Your task to perform on an android device: turn off wifi Image 0: 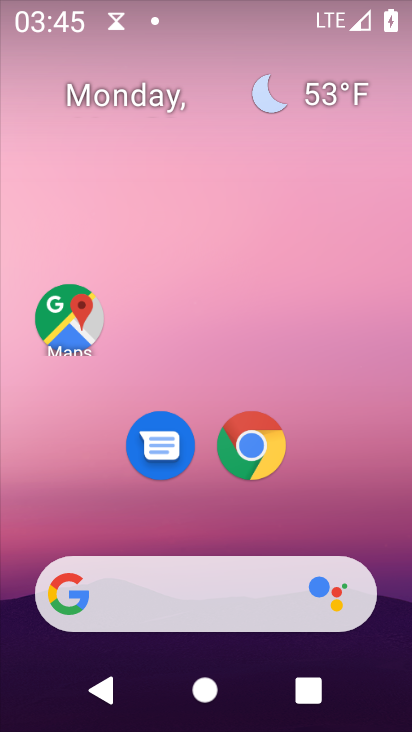
Step 0: drag from (194, 497) to (205, 174)
Your task to perform on an android device: turn off wifi Image 1: 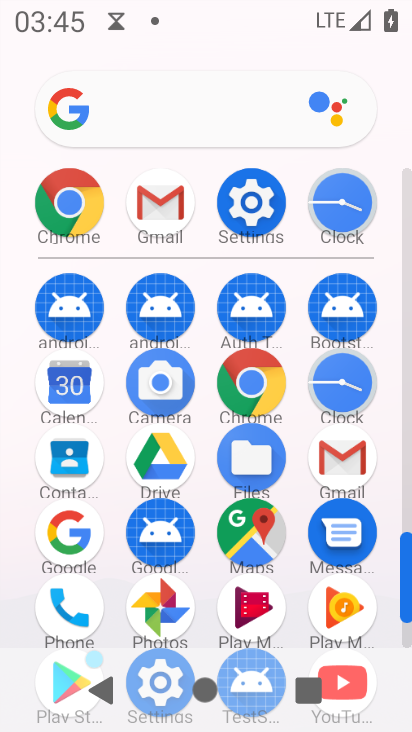
Step 1: click (256, 210)
Your task to perform on an android device: turn off wifi Image 2: 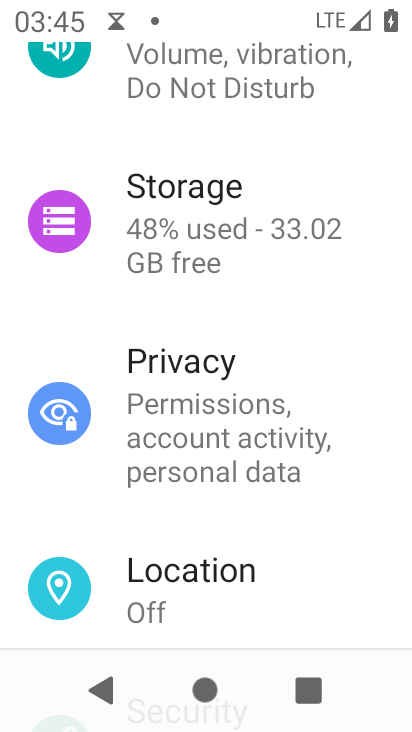
Step 2: drag from (201, 228) to (201, 572)
Your task to perform on an android device: turn off wifi Image 3: 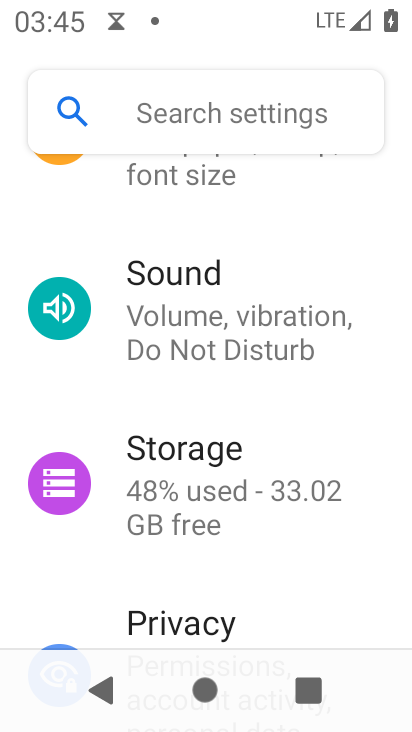
Step 3: drag from (235, 244) to (183, 729)
Your task to perform on an android device: turn off wifi Image 4: 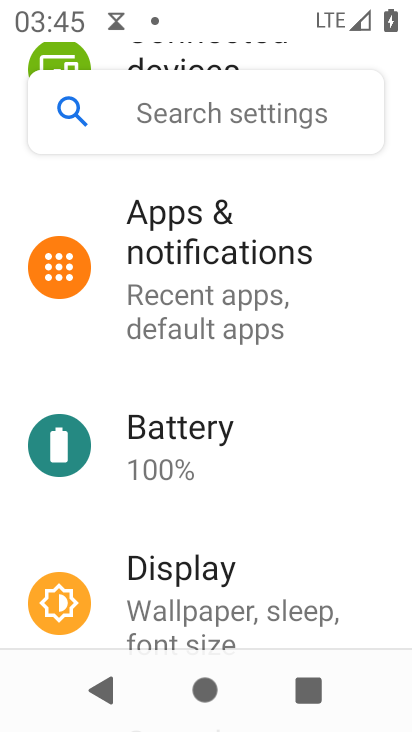
Step 4: drag from (235, 253) to (234, 477)
Your task to perform on an android device: turn off wifi Image 5: 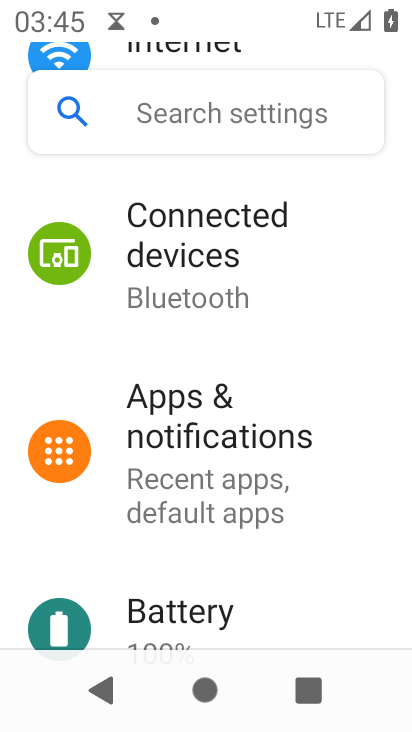
Step 5: drag from (248, 273) to (184, 717)
Your task to perform on an android device: turn off wifi Image 6: 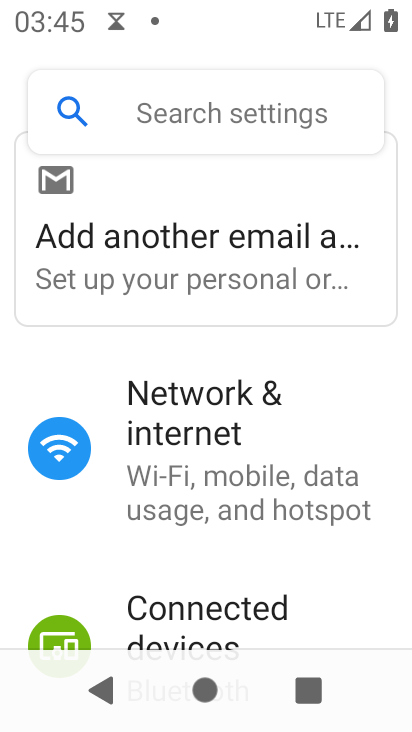
Step 6: click (196, 441)
Your task to perform on an android device: turn off wifi Image 7: 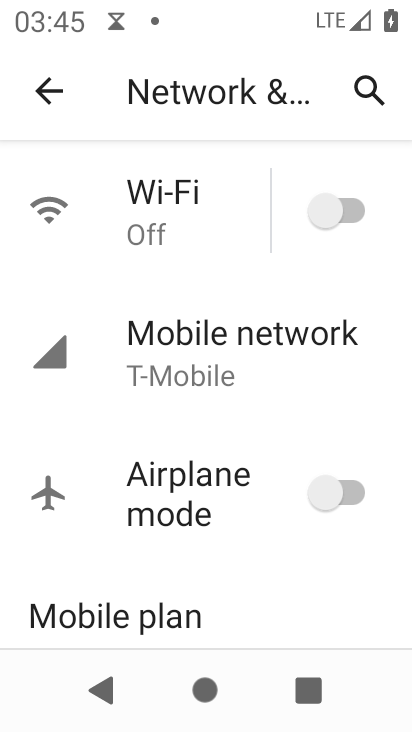
Step 7: task complete